Your task to perform on an android device: Open Chrome and go to settings Image 0: 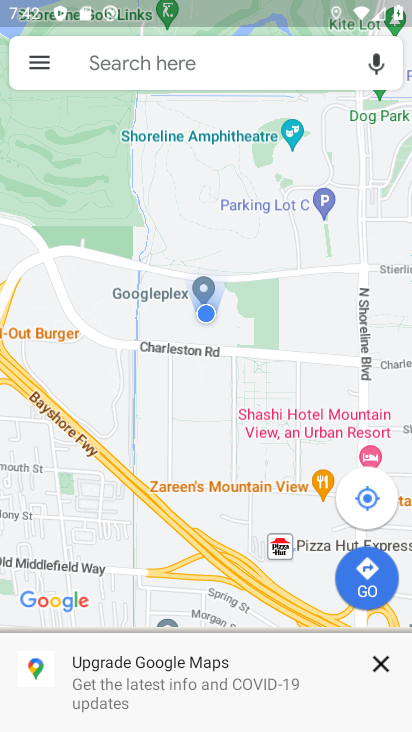
Step 0: press home button
Your task to perform on an android device: Open Chrome and go to settings Image 1: 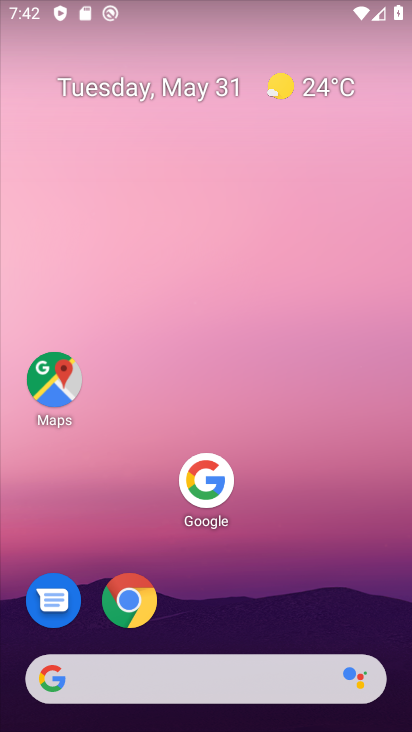
Step 1: click (121, 605)
Your task to perform on an android device: Open Chrome and go to settings Image 2: 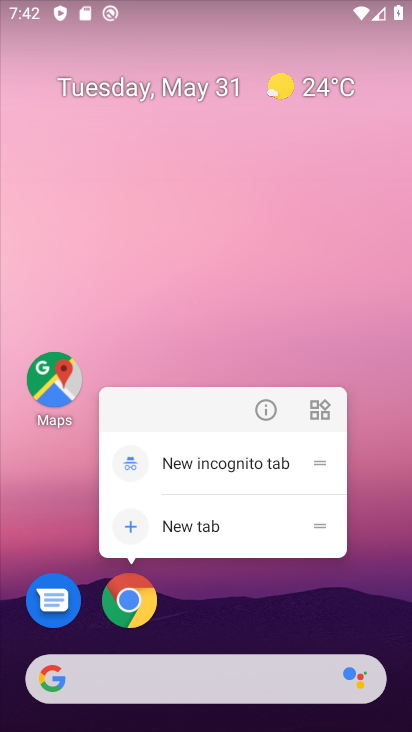
Step 2: click (121, 611)
Your task to perform on an android device: Open Chrome and go to settings Image 3: 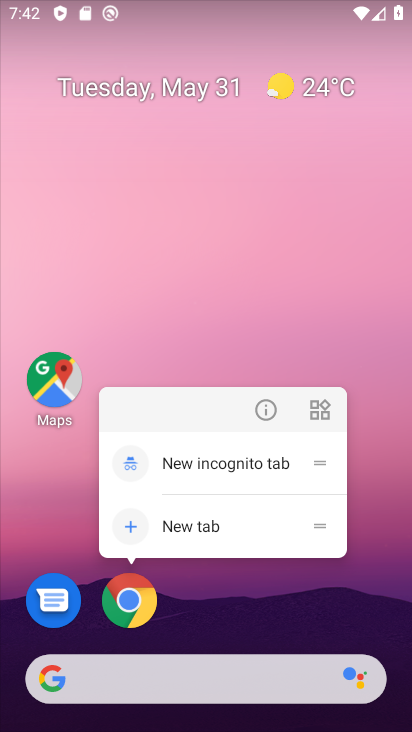
Step 3: click (133, 602)
Your task to perform on an android device: Open Chrome and go to settings Image 4: 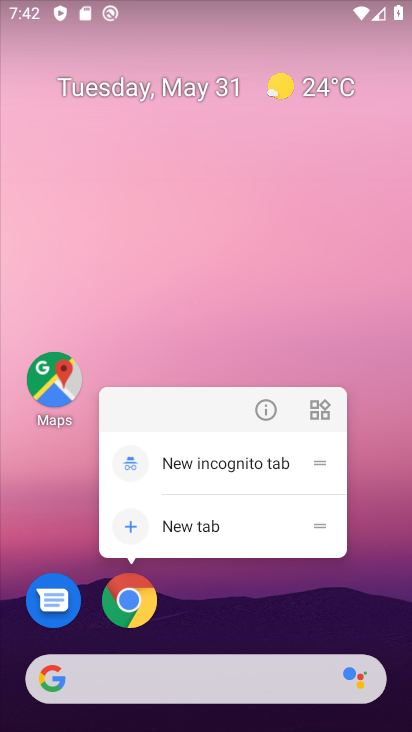
Step 4: click (114, 600)
Your task to perform on an android device: Open Chrome and go to settings Image 5: 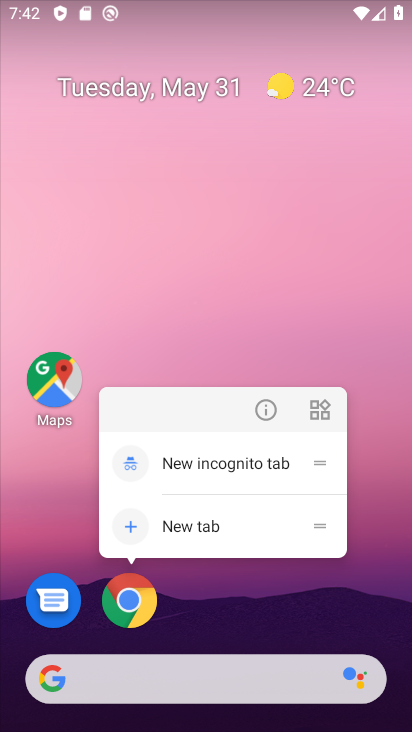
Step 5: click (128, 603)
Your task to perform on an android device: Open Chrome and go to settings Image 6: 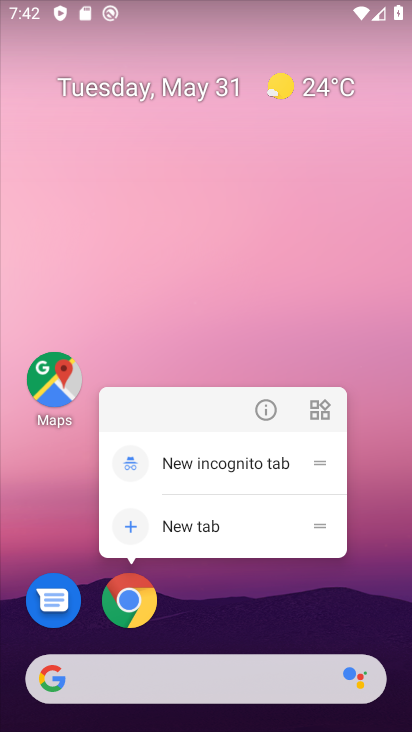
Step 6: click (128, 604)
Your task to perform on an android device: Open Chrome and go to settings Image 7: 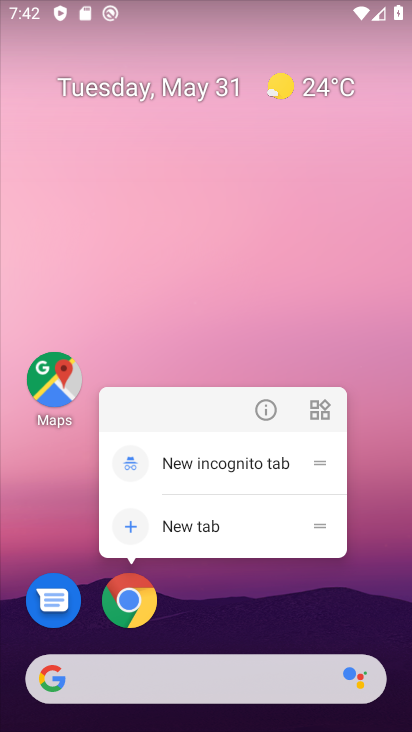
Step 7: click (128, 603)
Your task to perform on an android device: Open Chrome and go to settings Image 8: 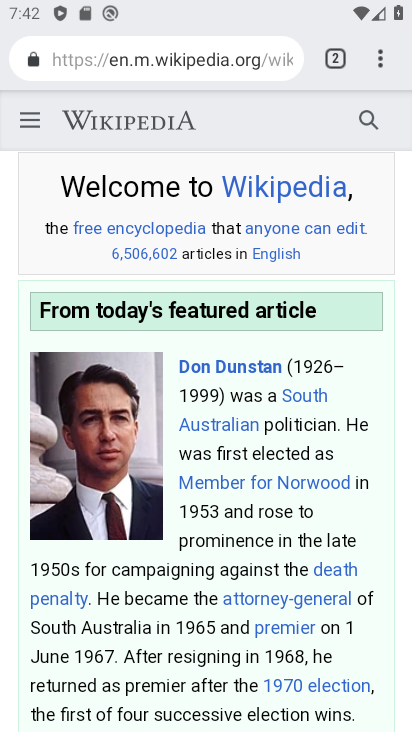
Step 8: task complete